Your task to perform on an android device: snooze an email in the gmail app Image 0: 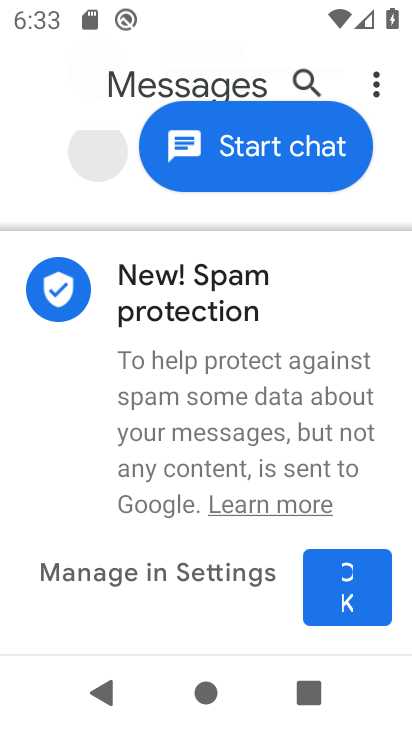
Step 0: drag from (348, 506) to (275, 303)
Your task to perform on an android device: snooze an email in the gmail app Image 1: 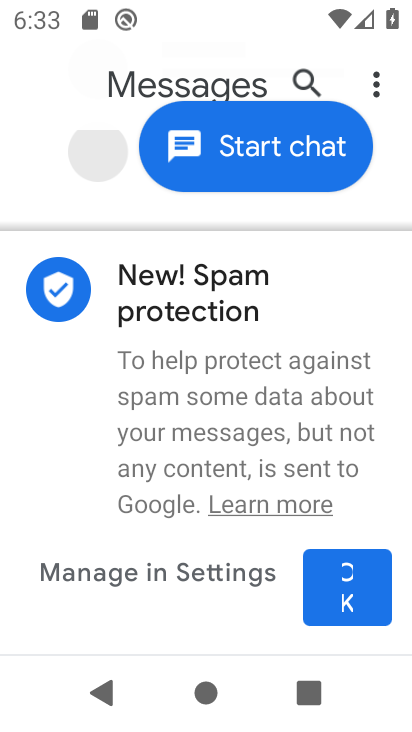
Step 1: press home button
Your task to perform on an android device: snooze an email in the gmail app Image 2: 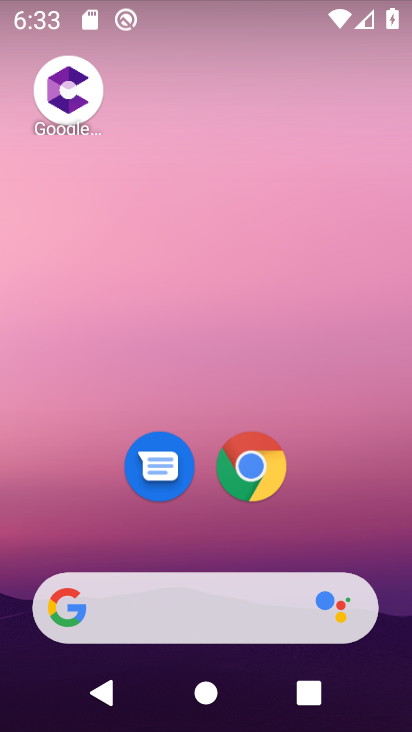
Step 2: drag from (342, 508) to (196, 159)
Your task to perform on an android device: snooze an email in the gmail app Image 3: 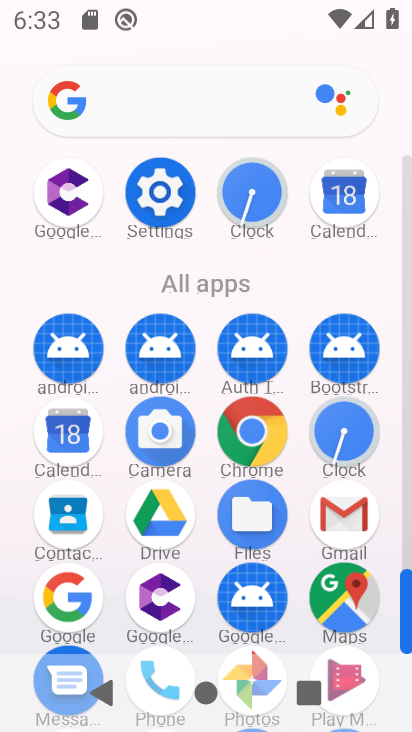
Step 3: click (338, 517)
Your task to perform on an android device: snooze an email in the gmail app Image 4: 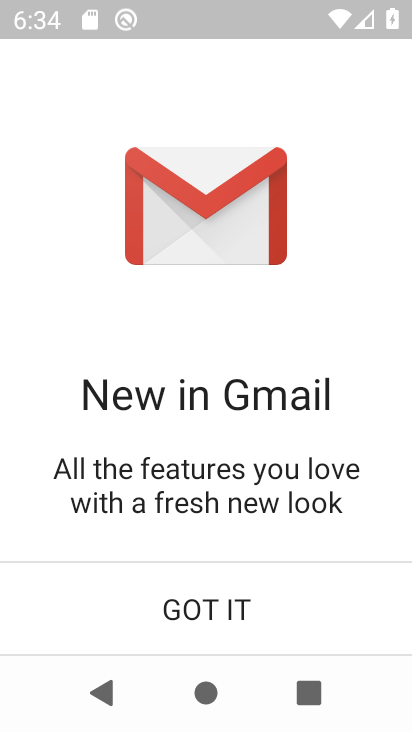
Step 4: click (209, 598)
Your task to perform on an android device: snooze an email in the gmail app Image 5: 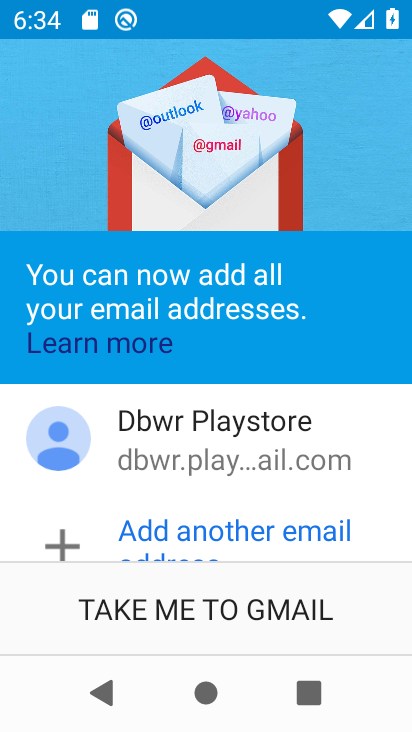
Step 5: click (208, 599)
Your task to perform on an android device: snooze an email in the gmail app Image 6: 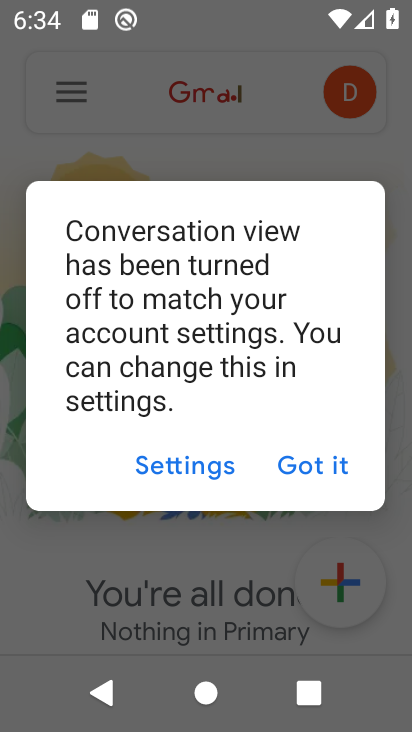
Step 6: click (287, 470)
Your task to perform on an android device: snooze an email in the gmail app Image 7: 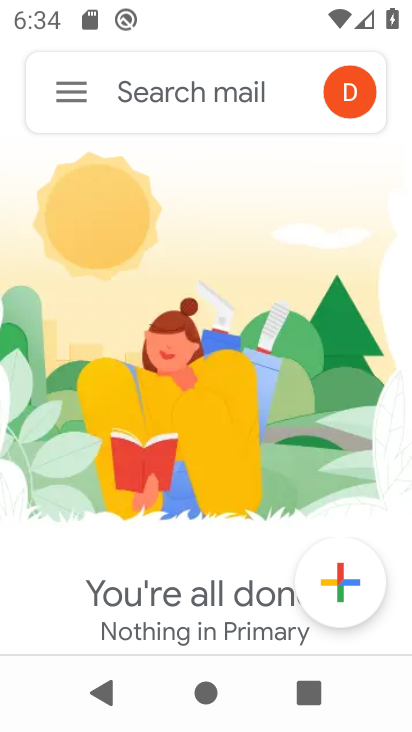
Step 7: click (70, 86)
Your task to perform on an android device: snooze an email in the gmail app Image 8: 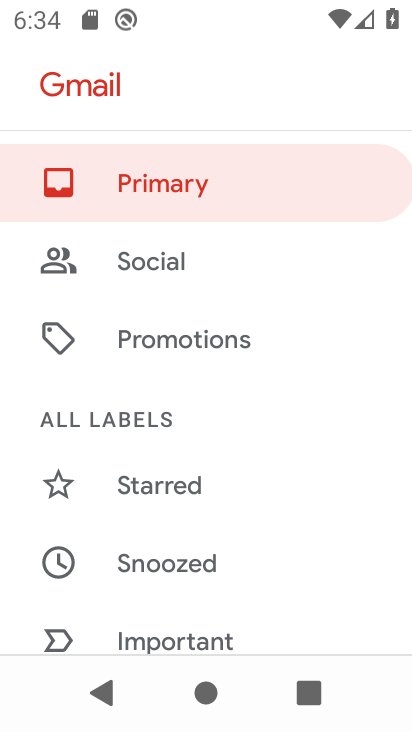
Step 8: drag from (247, 493) to (195, 159)
Your task to perform on an android device: snooze an email in the gmail app Image 9: 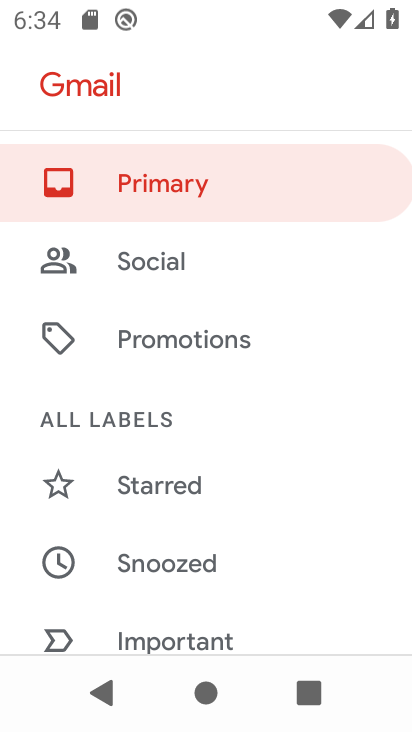
Step 9: drag from (219, 472) to (221, 167)
Your task to perform on an android device: snooze an email in the gmail app Image 10: 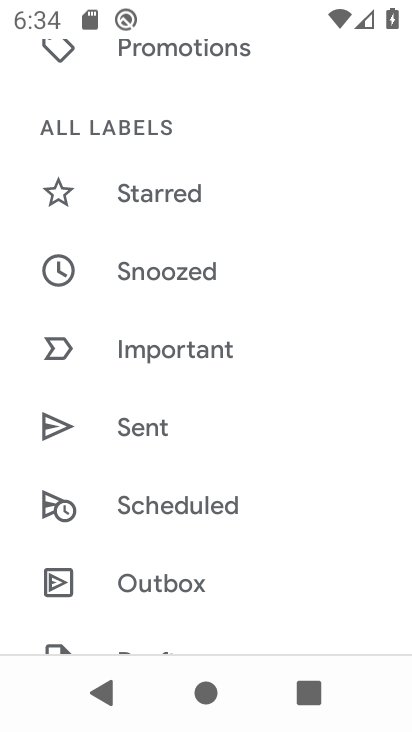
Step 10: drag from (194, 489) to (182, 226)
Your task to perform on an android device: snooze an email in the gmail app Image 11: 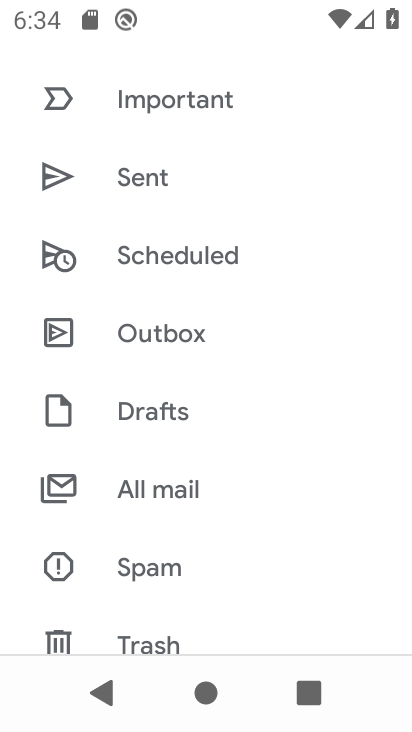
Step 11: drag from (233, 566) to (189, 215)
Your task to perform on an android device: snooze an email in the gmail app Image 12: 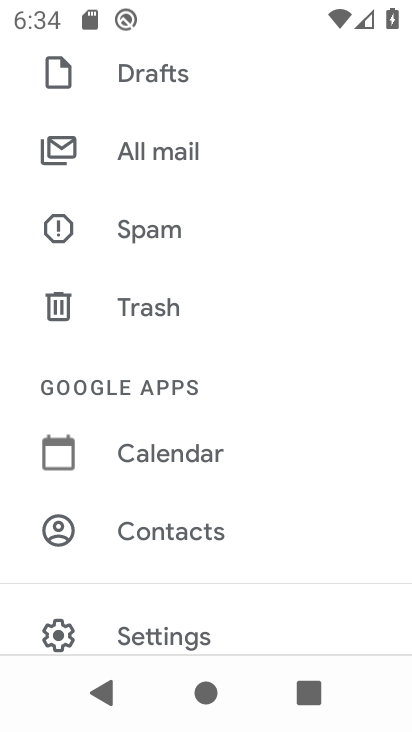
Step 12: click (139, 150)
Your task to perform on an android device: snooze an email in the gmail app Image 13: 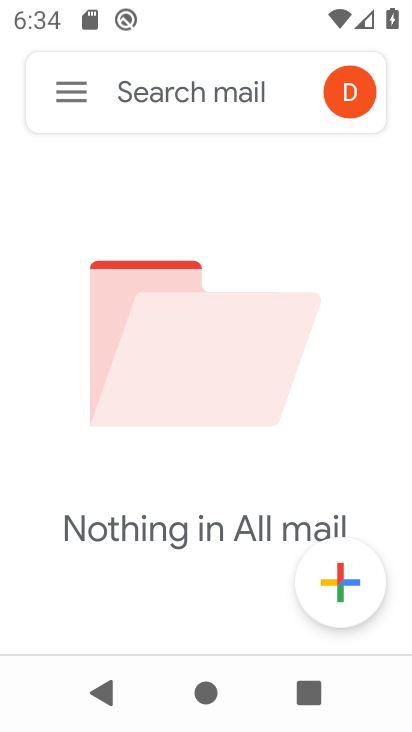
Step 13: task complete